Your task to perform on an android device: read, delete, or share a saved page in the chrome app Image 0: 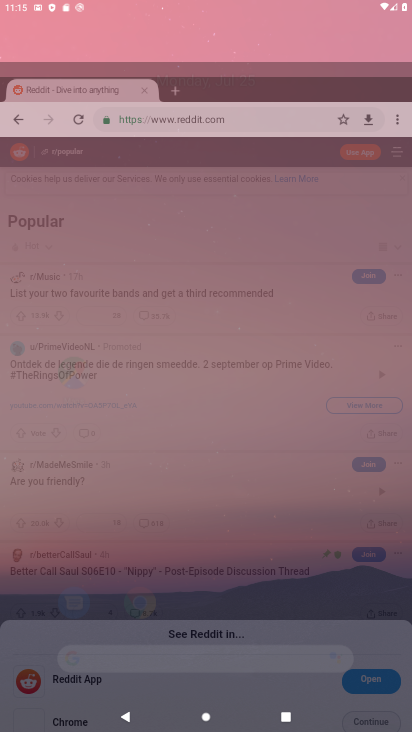
Step 0: click (70, 399)
Your task to perform on an android device: read, delete, or share a saved page in the chrome app Image 1: 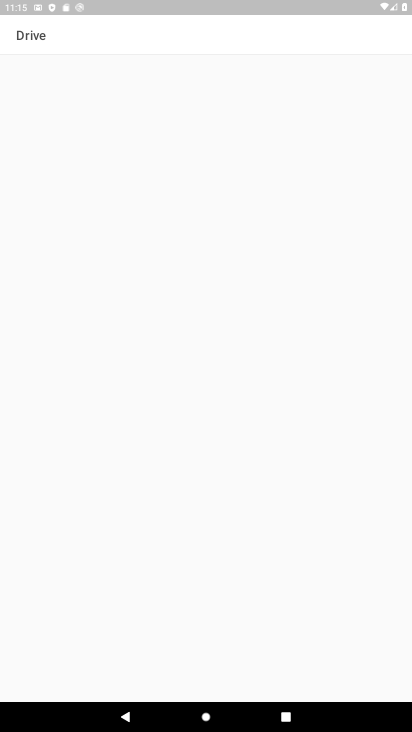
Step 1: drag from (190, 525) to (269, 271)
Your task to perform on an android device: read, delete, or share a saved page in the chrome app Image 2: 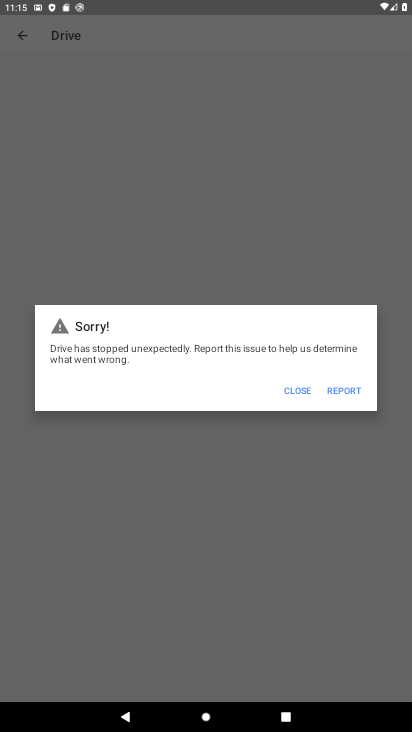
Step 2: press home button
Your task to perform on an android device: read, delete, or share a saved page in the chrome app Image 3: 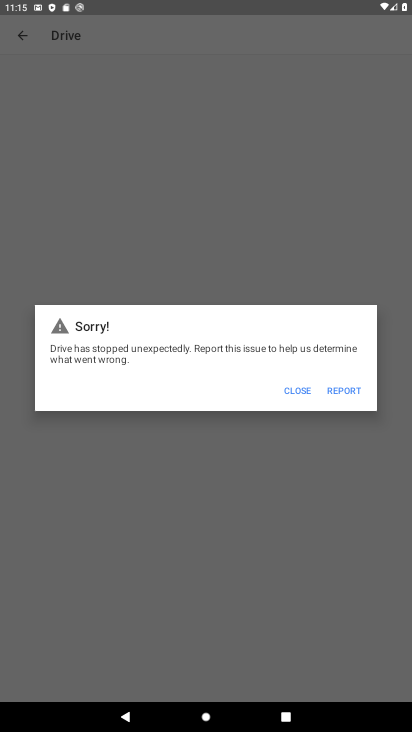
Step 3: press home button
Your task to perform on an android device: read, delete, or share a saved page in the chrome app Image 4: 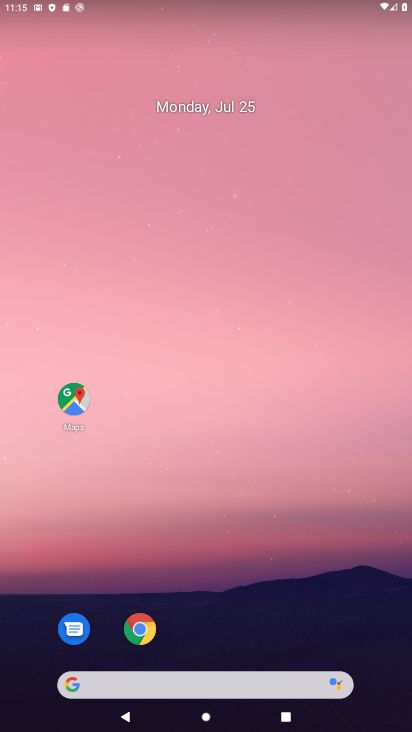
Step 4: drag from (216, 524) to (350, 80)
Your task to perform on an android device: read, delete, or share a saved page in the chrome app Image 5: 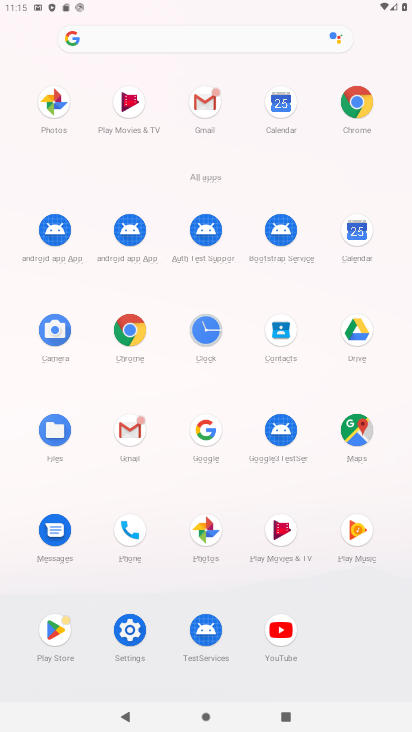
Step 5: click (123, 328)
Your task to perform on an android device: read, delete, or share a saved page in the chrome app Image 6: 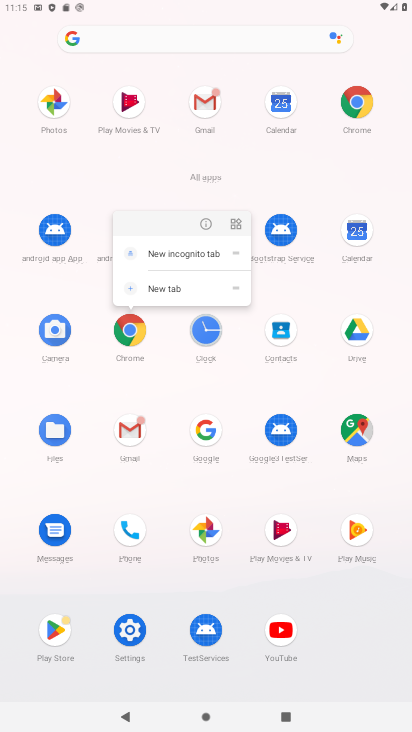
Step 6: click (205, 227)
Your task to perform on an android device: read, delete, or share a saved page in the chrome app Image 7: 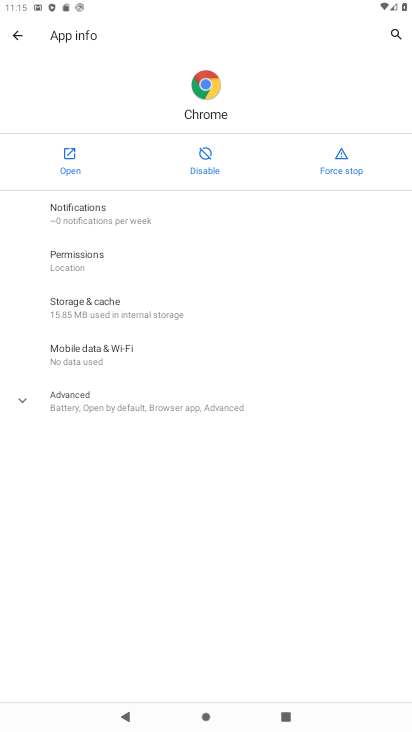
Step 7: click (68, 157)
Your task to perform on an android device: read, delete, or share a saved page in the chrome app Image 8: 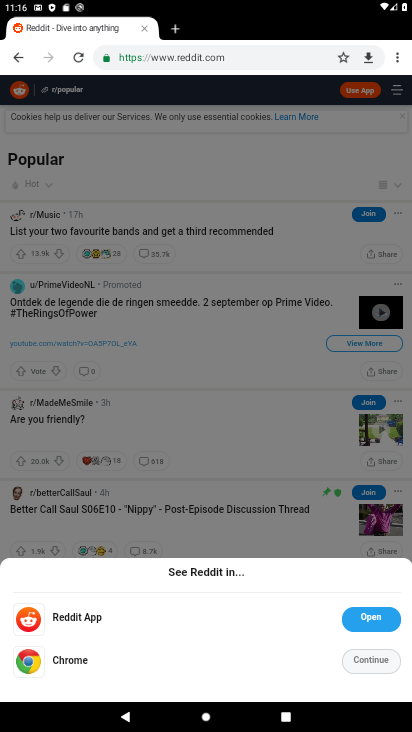
Step 8: drag from (394, 60) to (321, 115)
Your task to perform on an android device: read, delete, or share a saved page in the chrome app Image 9: 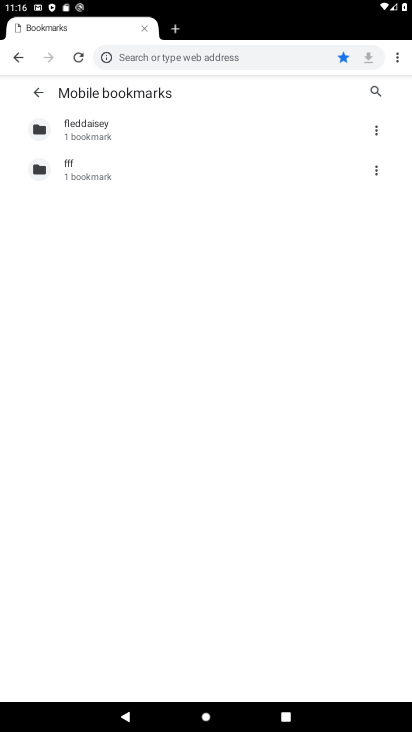
Step 9: click (92, 173)
Your task to perform on an android device: read, delete, or share a saved page in the chrome app Image 10: 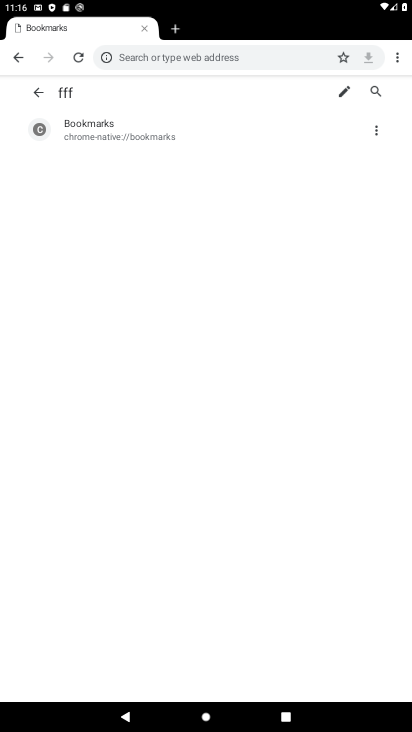
Step 10: click (147, 130)
Your task to perform on an android device: read, delete, or share a saved page in the chrome app Image 11: 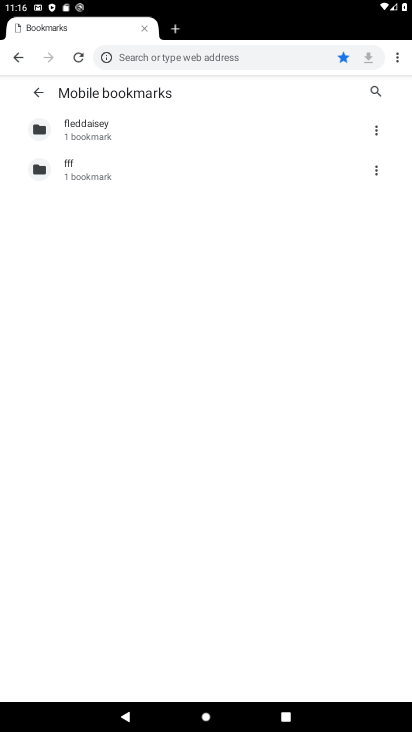
Step 11: task complete